Your task to perform on an android device: toggle translation in the chrome app Image 0: 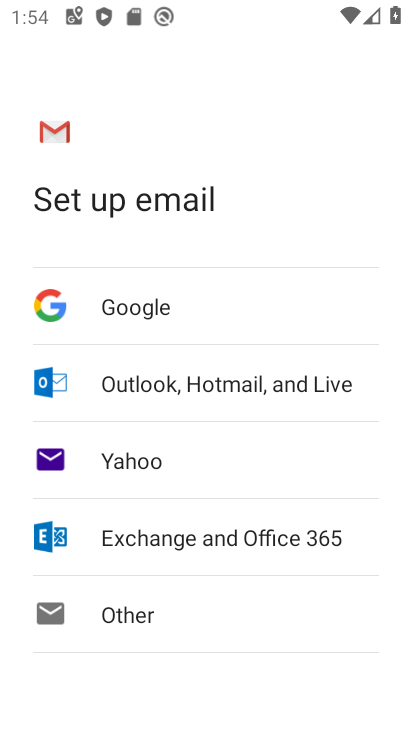
Step 0: press home button
Your task to perform on an android device: toggle translation in the chrome app Image 1: 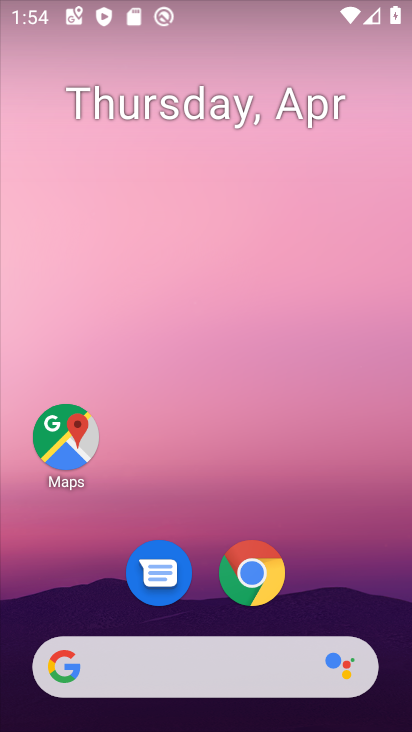
Step 1: drag from (361, 618) to (224, 51)
Your task to perform on an android device: toggle translation in the chrome app Image 2: 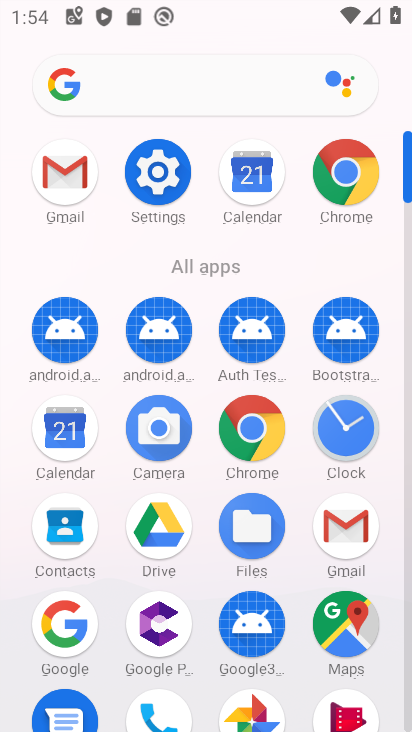
Step 2: click (335, 174)
Your task to perform on an android device: toggle translation in the chrome app Image 3: 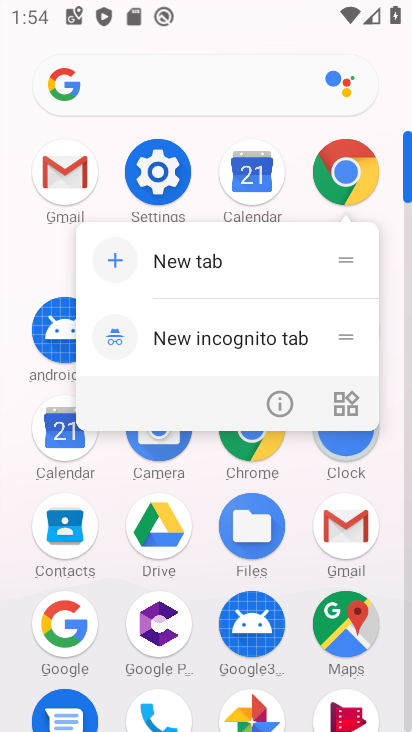
Step 3: click (335, 174)
Your task to perform on an android device: toggle translation in the chrome app Image 4: 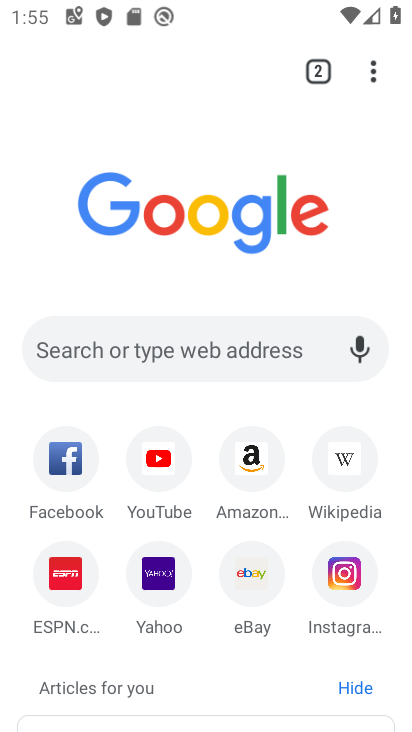
Step 4: click (374, 73)
Your task to perform on an android device: toggle translation in the chrome app Image 5: 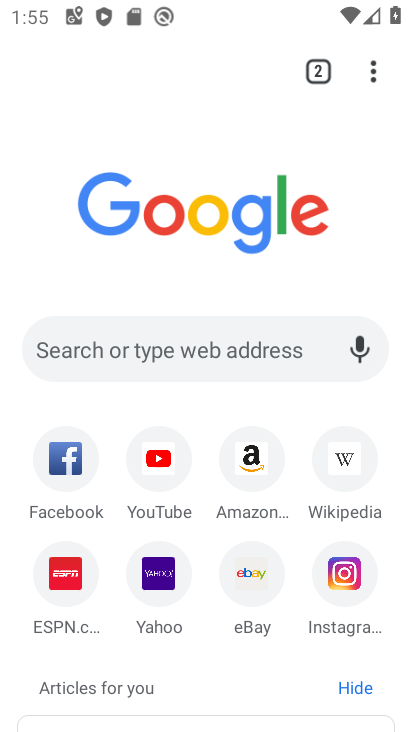
Step 5: click (372, 63)
Your task to perform on an android device: toggle translation in the chrome app Image 6: 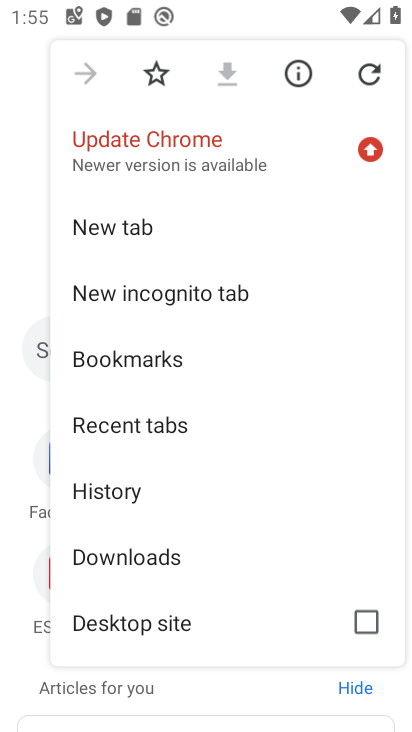
Step 6: drag from (183, 518) to (189, 328)
Your task to perform on an android device: toggle translation in the chrome app Image 7: 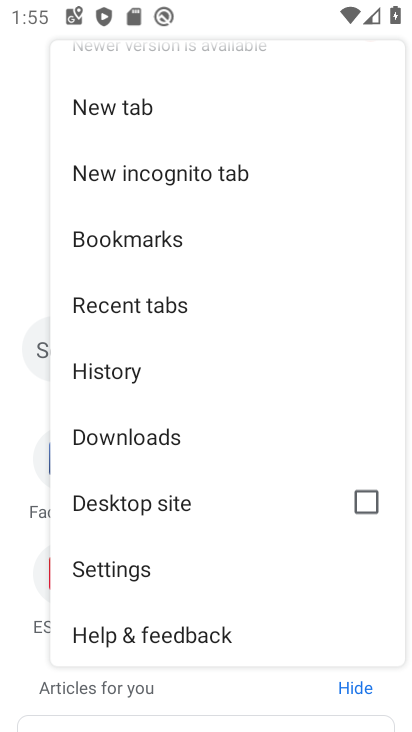
Step 7: click (117, 572)
Your task to perform on an android device: toggle translation in the chrome app Image 8: 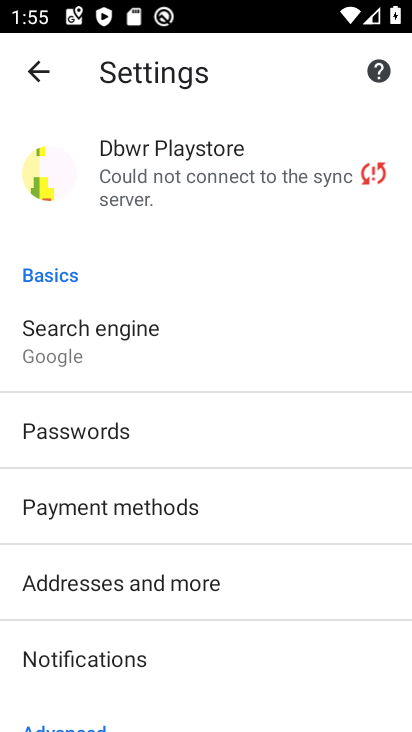
Step 8: drag from (138, 636) to (138, 276)
Your task to perform on an android device: toggle translation in the chrome app Image 9: 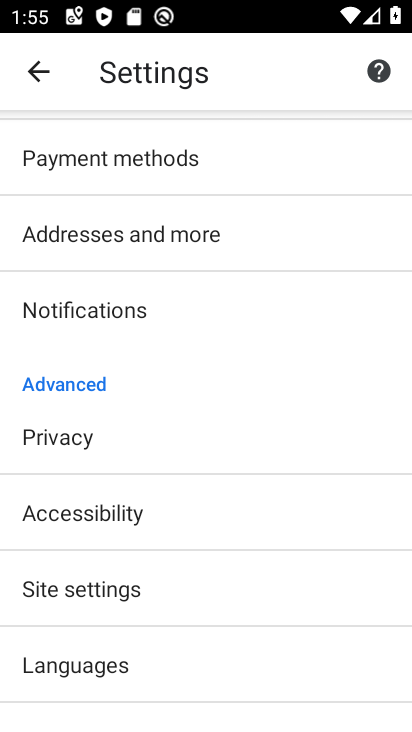
Step 9: drag from (127, 609) to (161, 327)
Your task to perform on an android device: toggle translation in the chrome app Image 10: 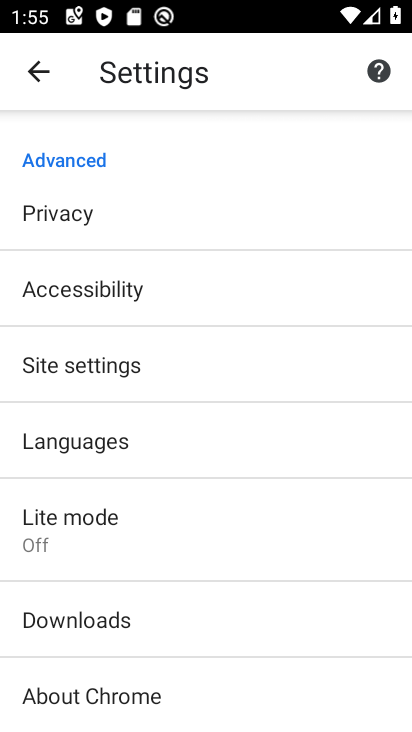
Step 10: click (153, 442)
Your task to perform on an android device: toggle translation in the chrome app Image 11: 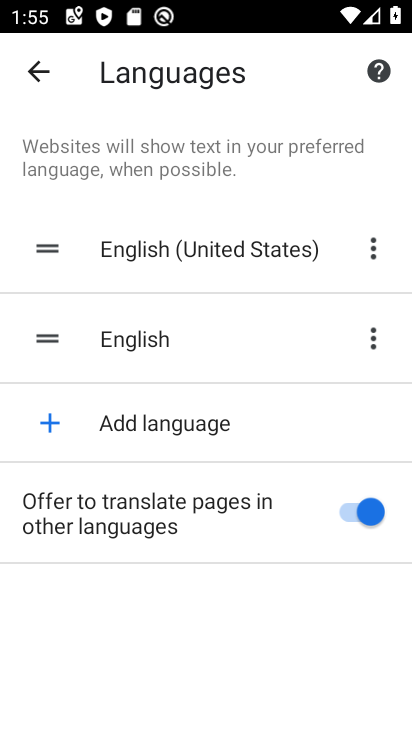
Step 11: click (316, 515)
Your task to perform on an android device: toggle translation in the chrome app Image 12: 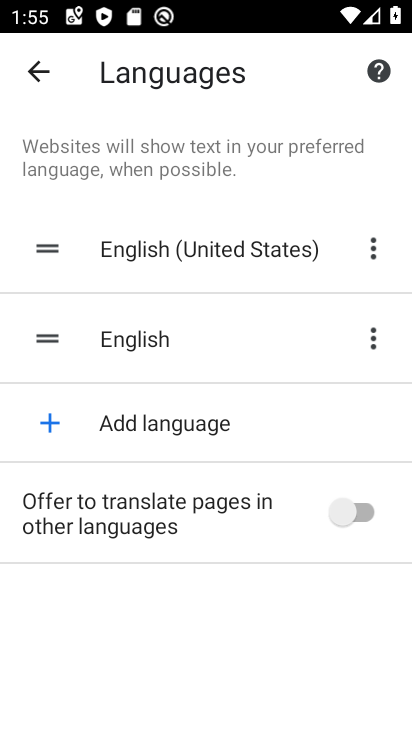
Step 12: task complete